Your task to perform on an android device: turn notification dots off Image 0: 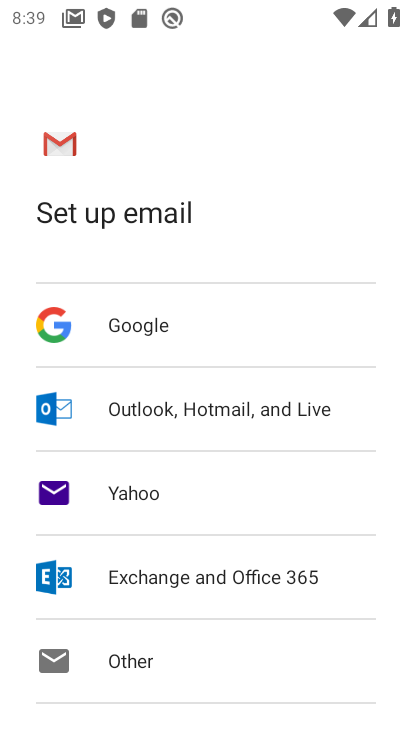
Step 0: press back button
Your task to perform on an android device: turn notification dots off Image 1: 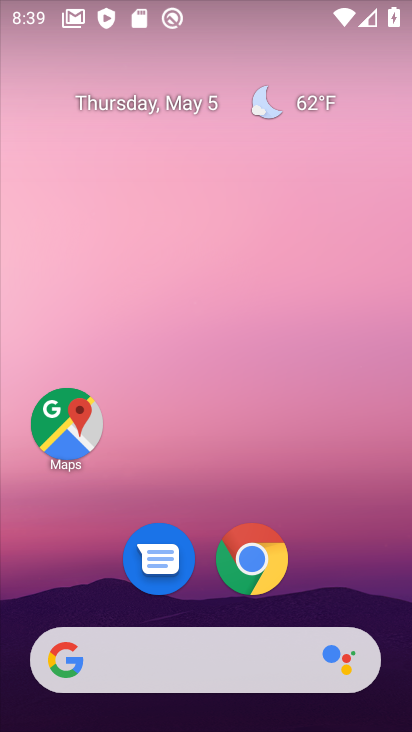
Step 1: drag from (93, 631) to (189, 63)
Your task to perform on an android device: turn notification dots off Image 2: 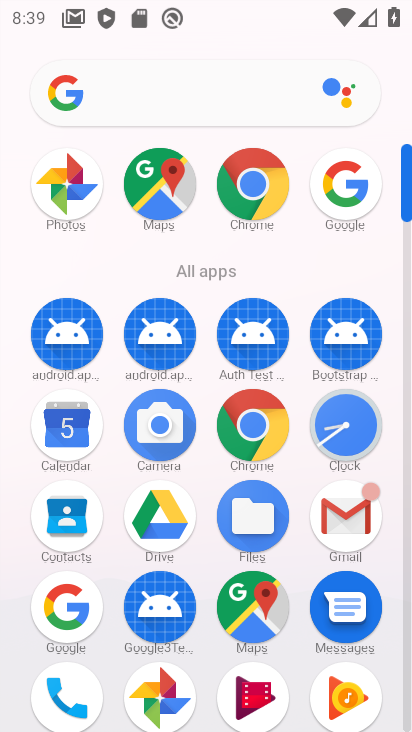
Step 2: drag from (210, 568) to (279, 217)
Your task to perform on an android device: turn notification dots off Image 3: 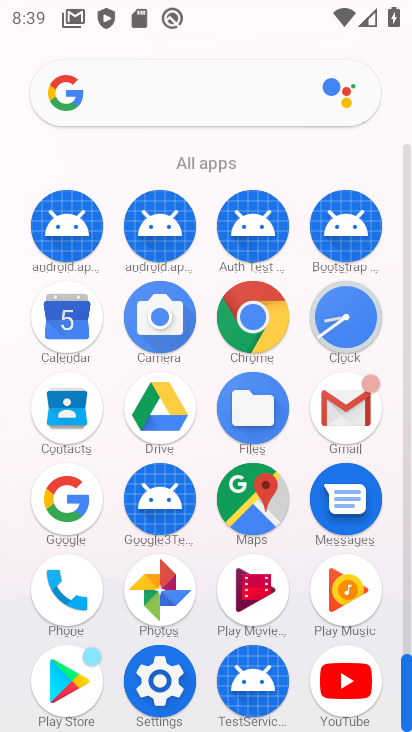
Step 3: click (144, 661)
Your task to perform on an android device: turn notification dots off Image 4: 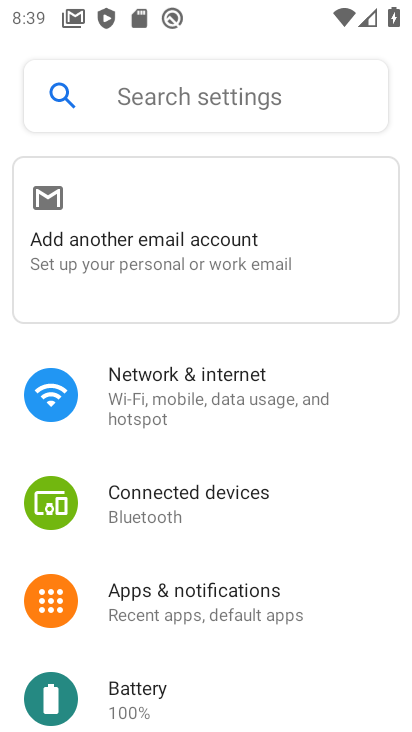
Step 4: click (231, 579)
Your task to perform on an android device: turn notification dots off Image 5: 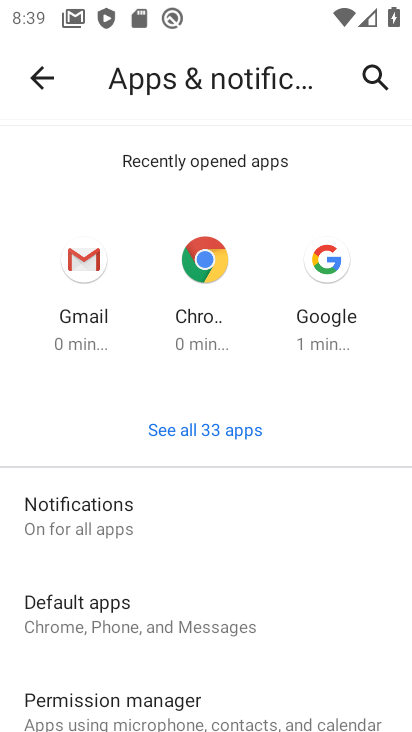
Step 5: drag from (223, 623) to (290, 421)
Your task to perform on an android device: turn notification dots off Image 6: 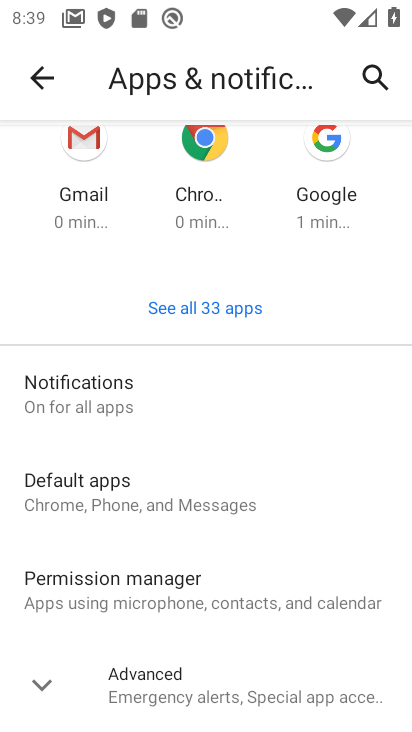
Step 6: click (161, 389)
Your task to perform on an android device: turn notification dots off Image 7: 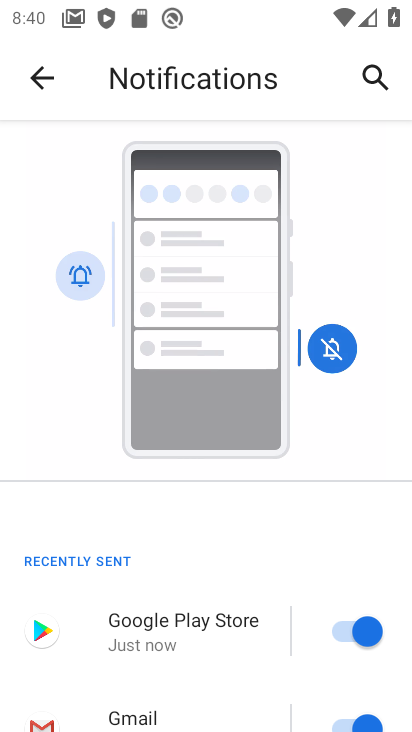
Step 7: drag from (164, 691) to (339, 122)
Your task to perform on an android device: turn notification dots off Image 8: 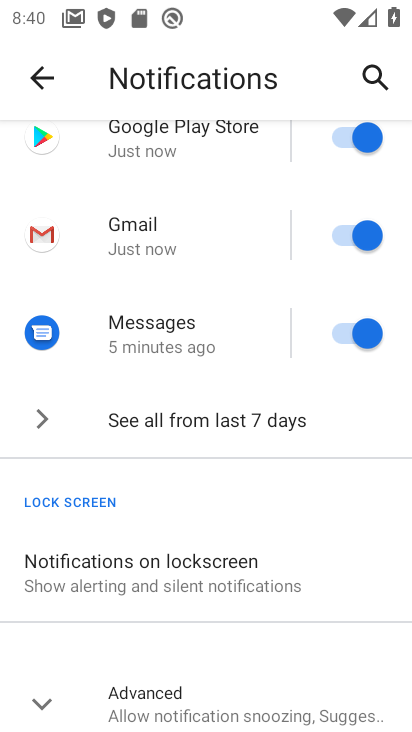
Step 8: drag from (139, 677) to (223, 372)
Your task to perform on an android device: turn notification dots off Image 9: 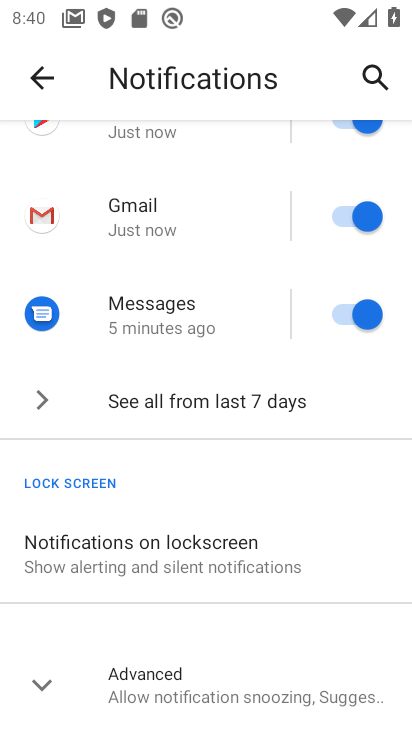
Step 9: drag from (192, 683) to (251, 439)
Your task to perform on an android device: turn notification dots off Image 10: 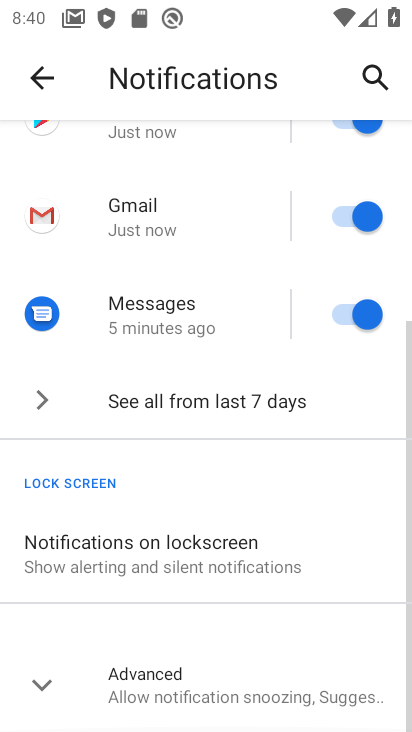
Step 10: click (194, 705)
Your task to perform on an android device: turn notification dots off Image 11: 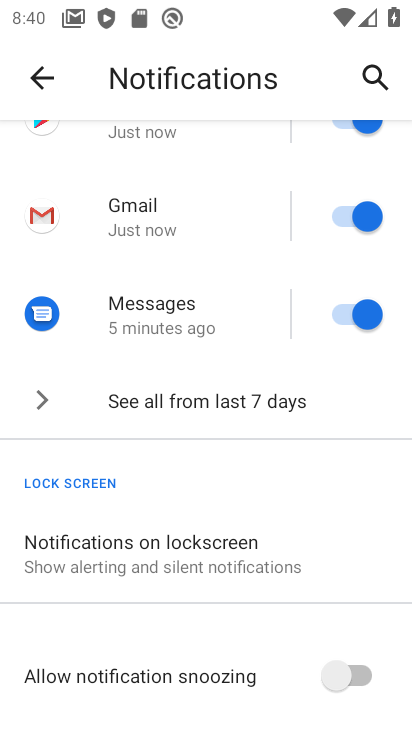
Step 11: drag from (181, 670) to (275, 253)
Your task to perform on an android device: turn notification dots off Image 12: 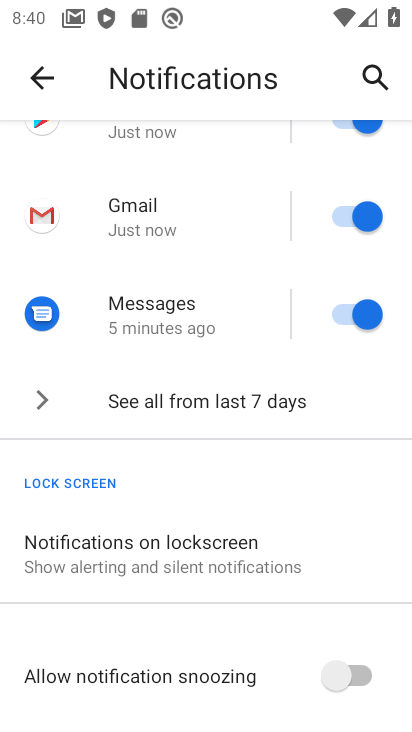
Step 12: drag from (186, 655) to (324, 175)
Your task to perform on an android device: turn notification dots off Image 13: 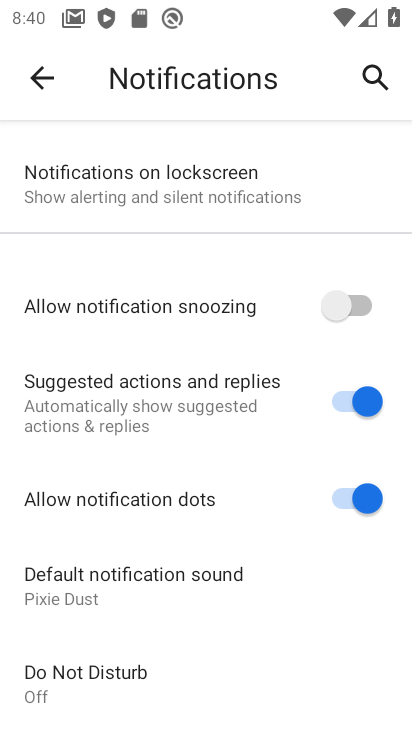
Step 13: drag from (200, 233) to (208, 564)
Your task to perform on an android device: turn notification dots off Image 14: 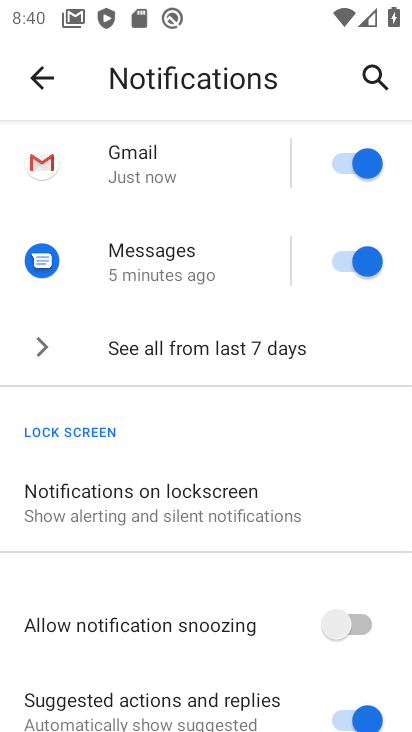
Step 14: drag from (234, 705) to (356, 253)
Your task to perform on an android device: turn notification dots off Image 15: 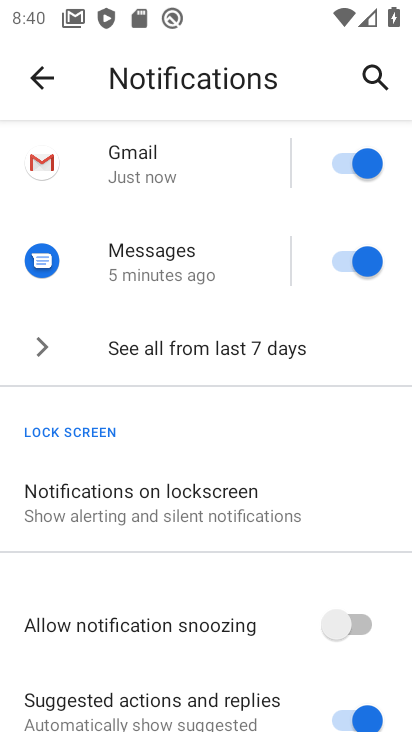
Step 15: drag from (188, 678) to (263, 280)
Your task to perform on an android device: turn notification dots off Image 16: 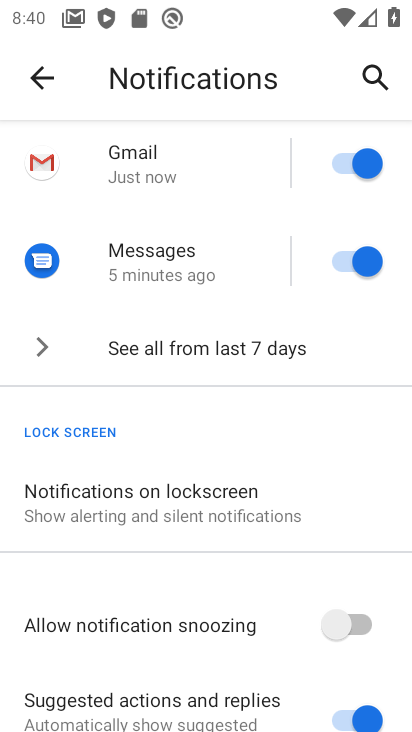
Step 16: drag from (143, 682) to (305, 68)
Your task to perform on an android device: turn notification dots off Image 17: 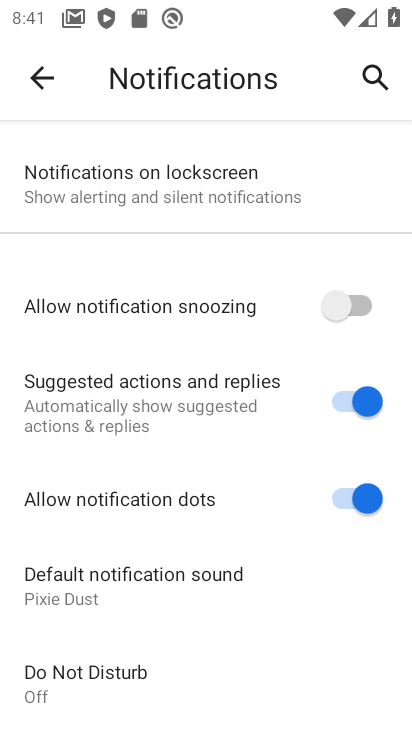
Step 17: drag from (131, 687) to (333, 195)
Your task to perform on an android device: turn notification dots off Image 18: 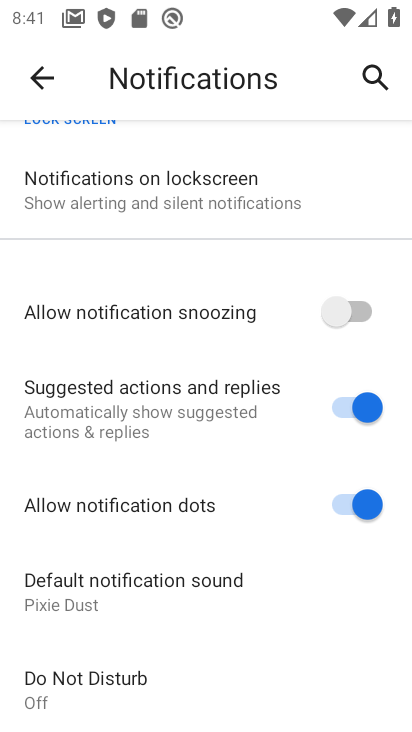
Step 18: click (353, 501)
Your task to perform on an android device: turn notification dots off Image 19: 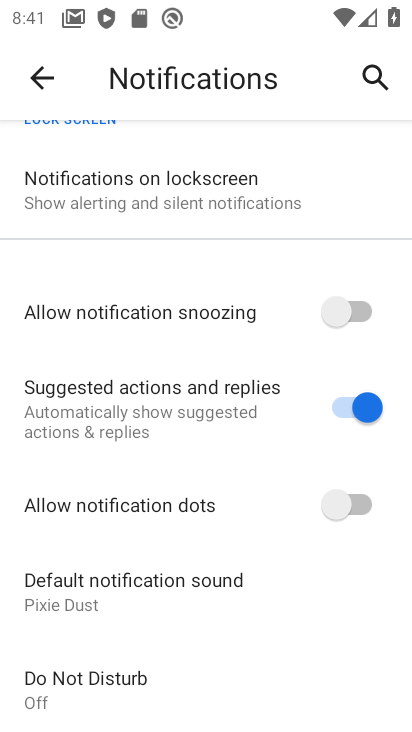
Step 19: task complete